Your task to perform on an android device: see tabs open on other devices in the chrome app Image 0: 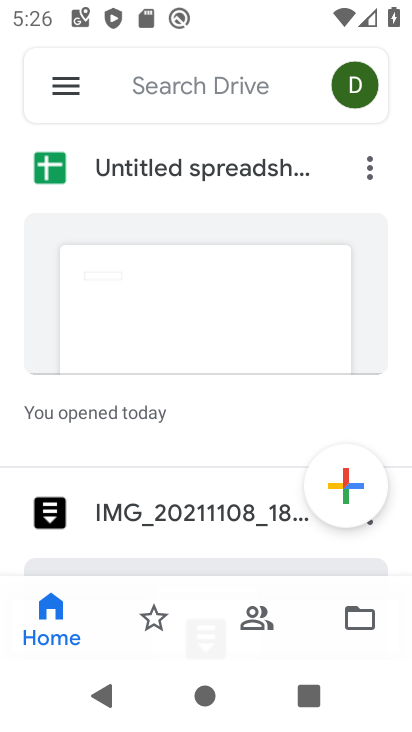
Step 0: press home button
Your task to perform on an android device: see tabs open on other devices in the chrome app Image 1: 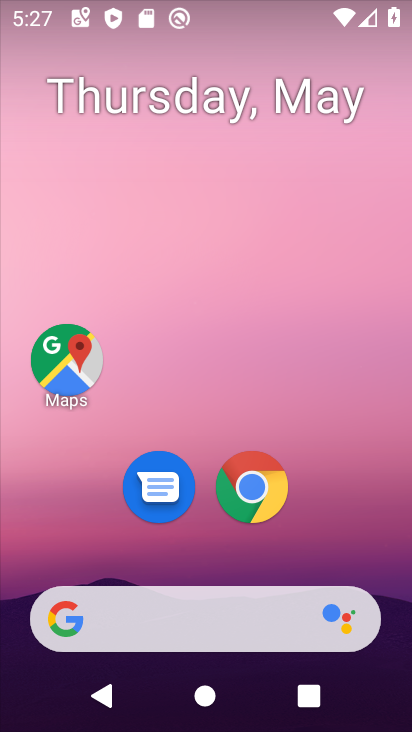
Step 1: click (252, 481)
Your task to perform on an android device: see tabs open on other devices in the chrome app Image 2: 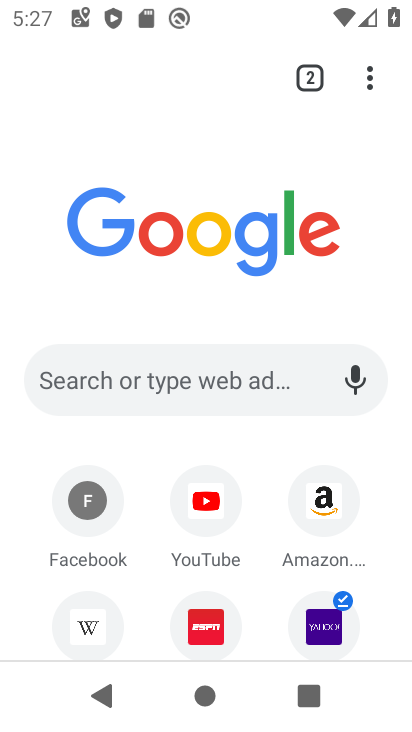
Step 2: click (366, 80)
Your task to perform on an android device: see tabs open on other devices in the chrome app Image 3: 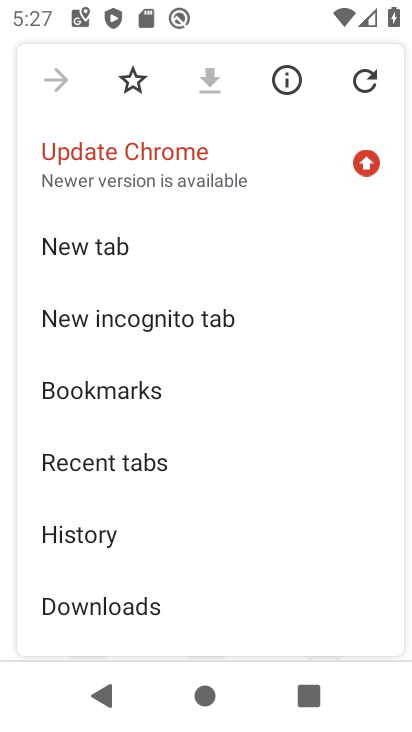
Step 3: click (146, 452)
Your task to perform on an android device: see tabs open on other devices in the chrome app Image 4: 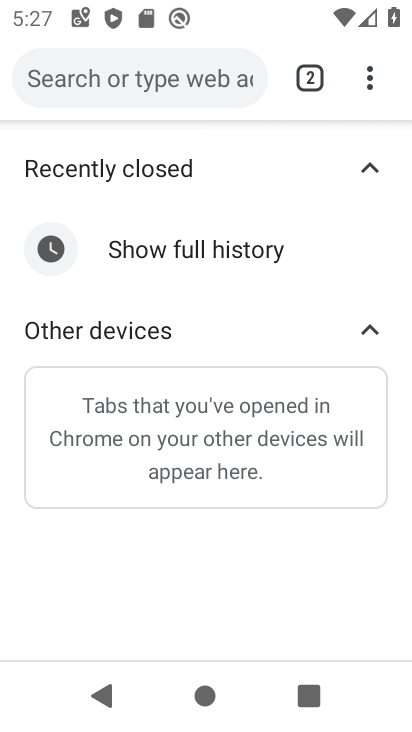
Step 4: task complete